Your task to perform on an android device: Go to Yahoo.com Image 0: 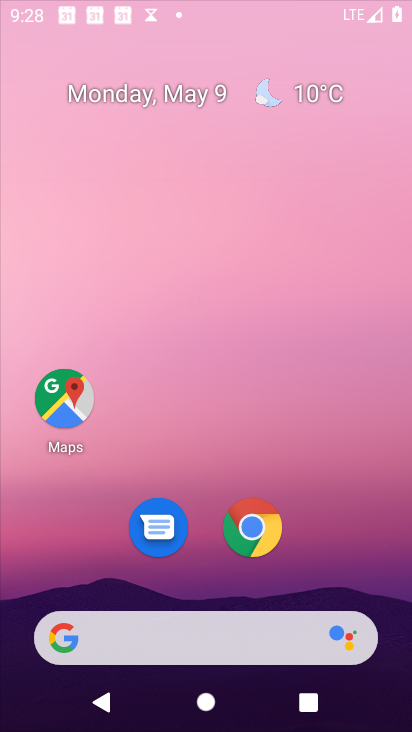
Step 0: click (232, 291)
Your task to perform on an android device: Go to Yahoo.com Image 1: 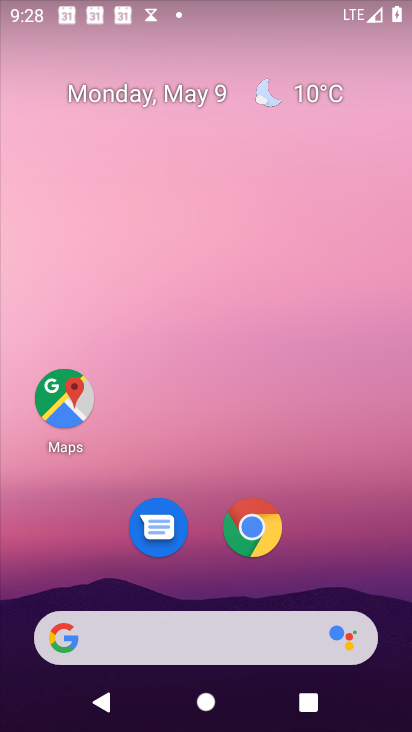
Step 1: click (246, 524)
Your task to perform on an android device: Go to Yahoo.com Image 2: 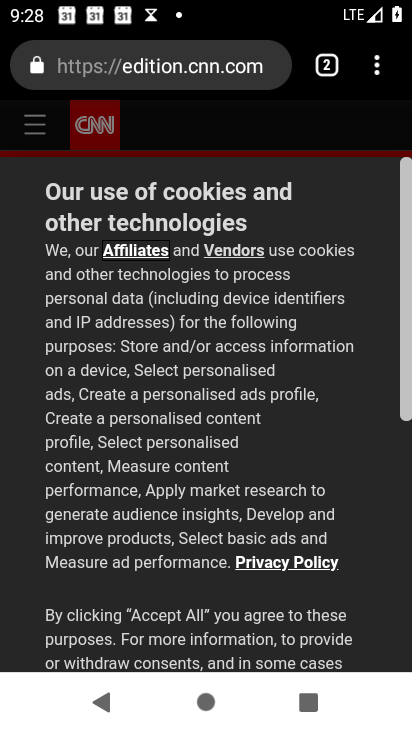
Step 2: click (228, 61)
Your task to perform on an android device: Go to Yahoo.com Image 3: 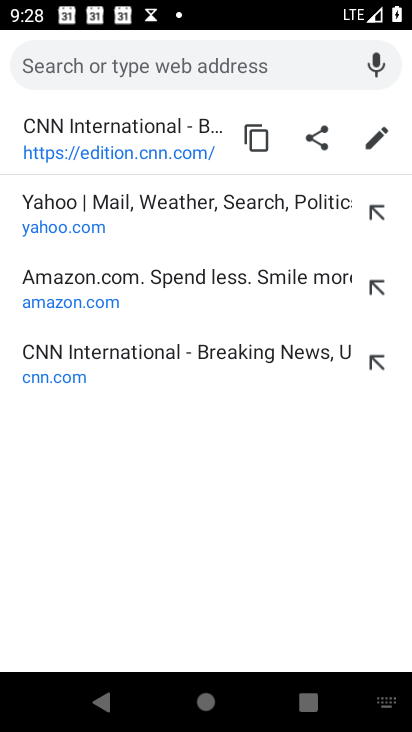
Step 3: type "yahoo.com"
Your task to perform on an android device: Go to Yahoo.com Image 4: 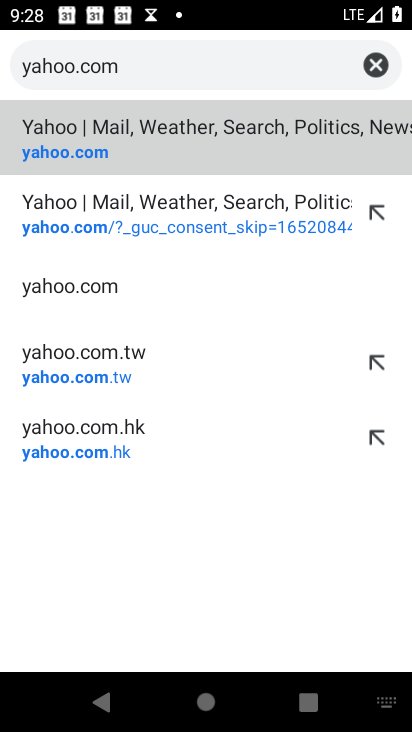
Step 4: click (138, 146)
Your task to perform on an android device: Go to Yahoo.com Image 5: 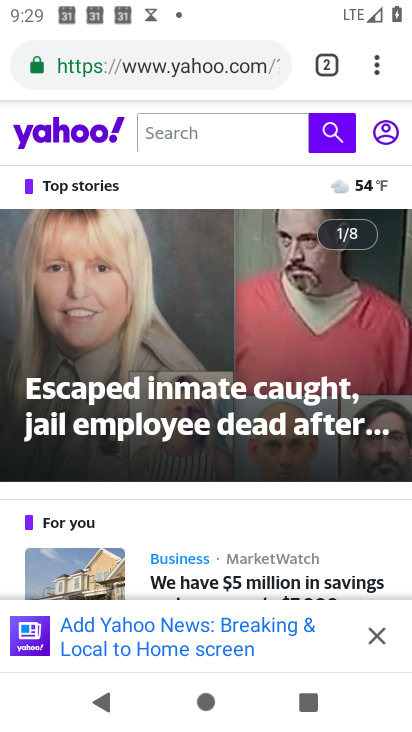
Step 5: task complete